Your task to perform on an android device: Turn on the flashlight Image 0: 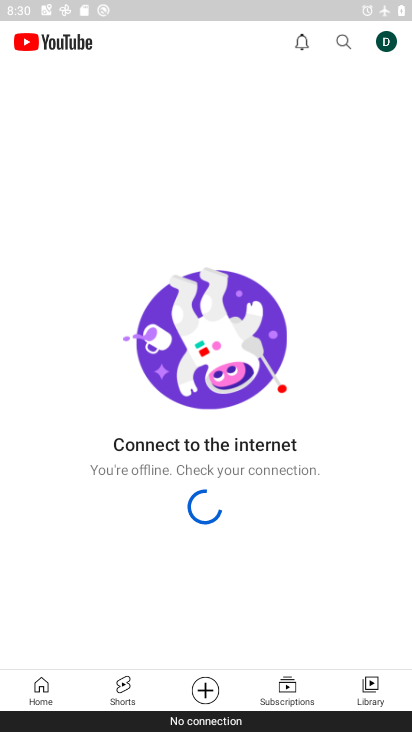
Step 0: press home button
Your task to perform on an android device: Turn on the flashlight Image 1: 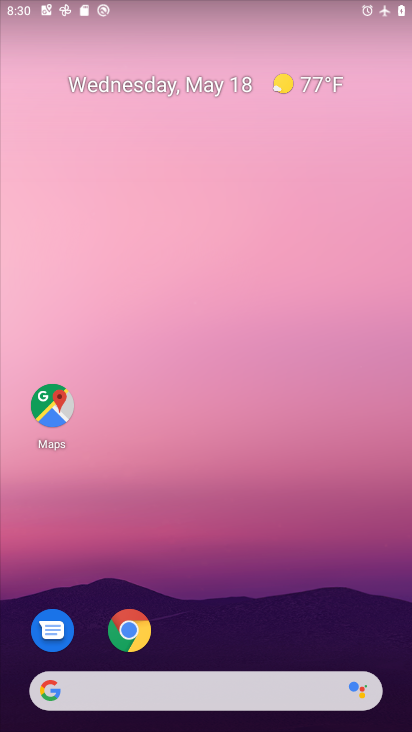
Step 1: drag from (297, 600) to (293, 183)
Your task to perform on an android device: Turn on the flashlight Image 2: 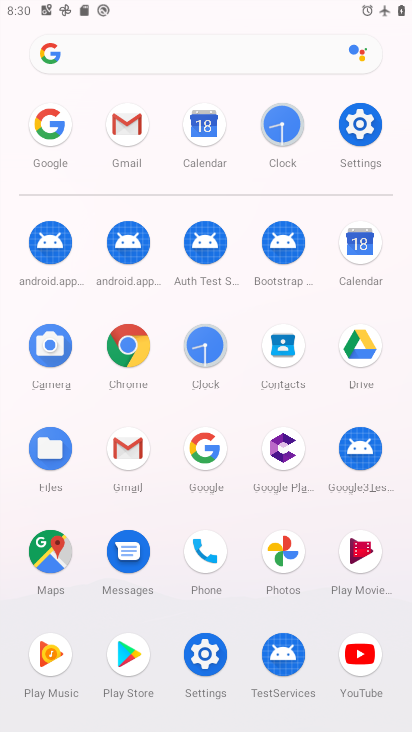
Step 2: click (374, 118)
Your task to perform on an android device: Turn on the flashlight Image 3: 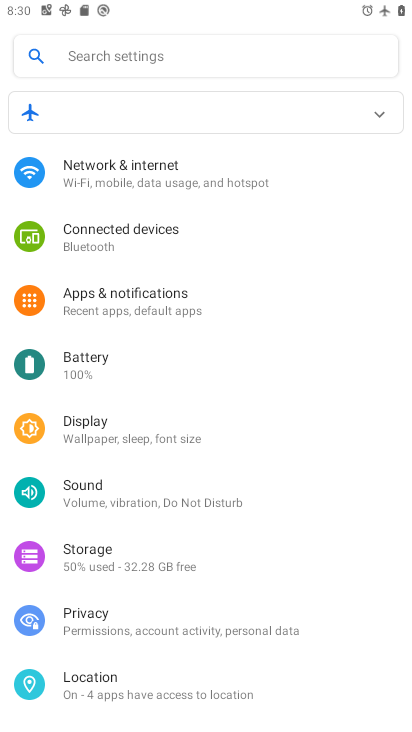
Step 3: click (135, 60)
Your task to perform on an android device: Turn on the flashlight Image 4: 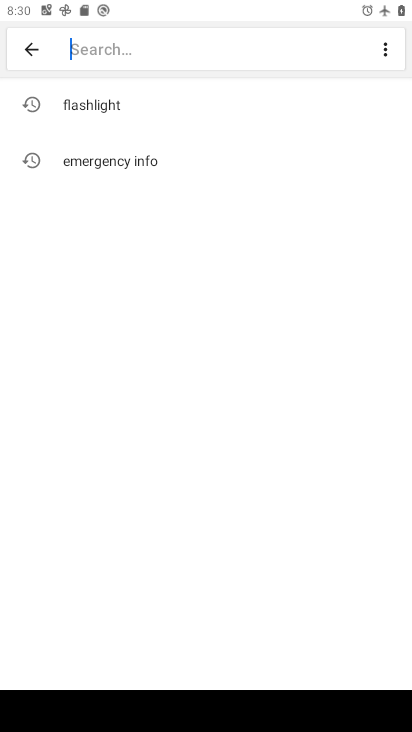
Step 4: click (121, 92)
Your task to perform on an android device: Turn on the flashlight Image 5: 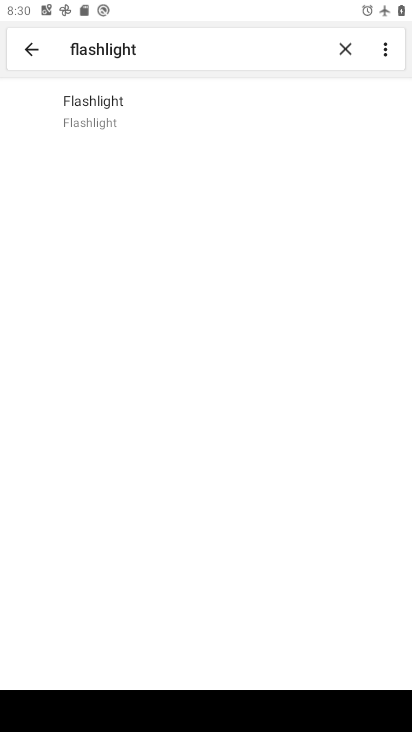
Step 5: click (195, 108)
Your task to perform on an android device: Turn on the flashlight Image 6: 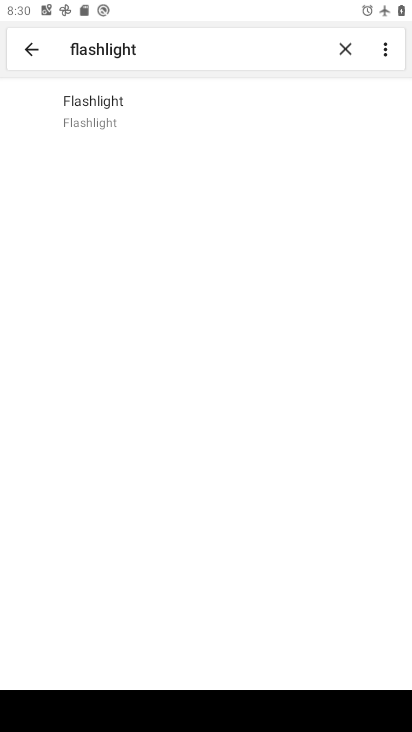
Step 6: task complete